Your task to perform on an android device: Go to display settings Image 0: 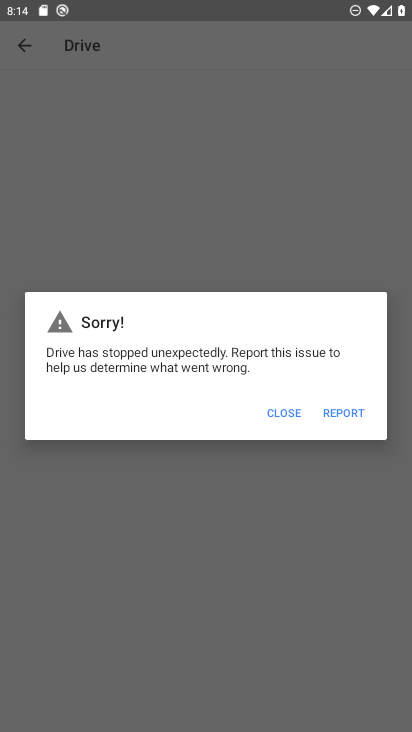
Step 0: press home button
Your task to perform on an android device: Go to display settings Image 1: 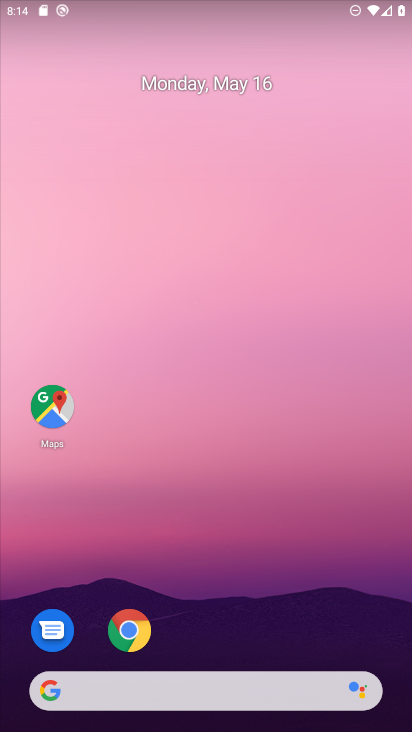
Step 1: drag from (270, 609) to (336, 189)
Your task to perform on an android device: Go to display settings Image 2: 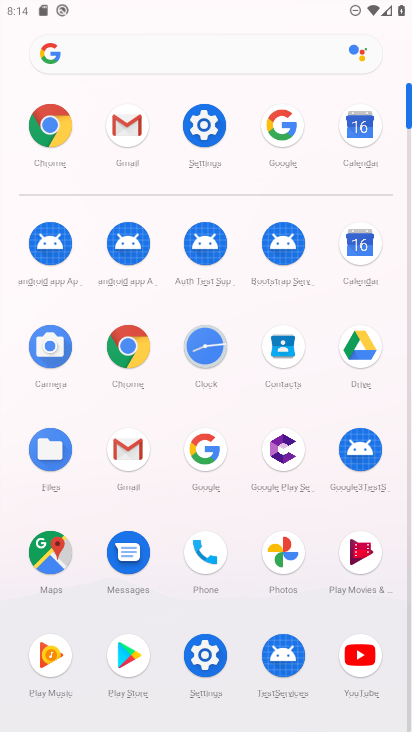
Step 2: click (192, 141)
Your task to perform on an android device: Go to display settings Image 3: 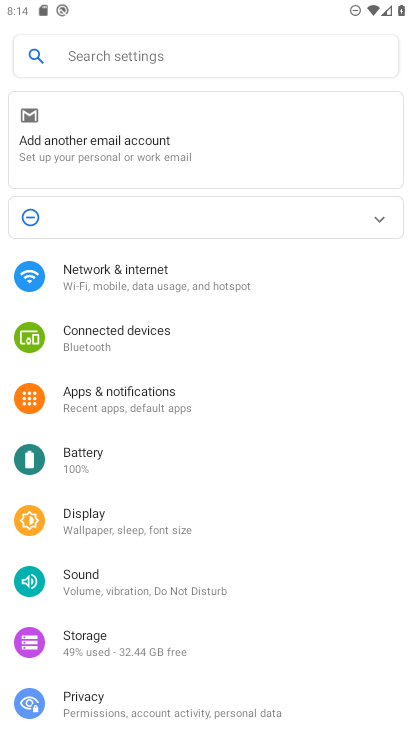
Step 3: click (158, 510)
Your task to perform on an android device: Go to display settings Image 4: 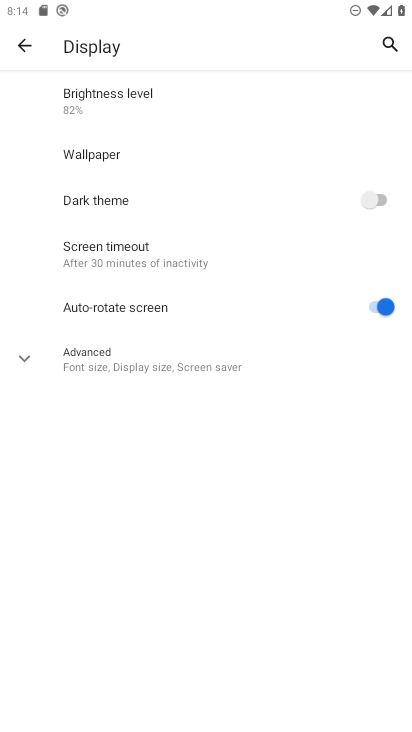
Step 4: task complete